Your task to perform on an android device: Check the news Image 0: 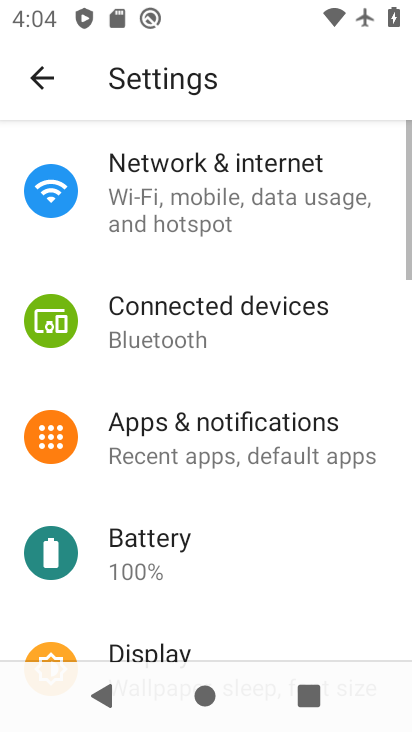
Step 0: press home button
Your task to perform on an android device: Check the news Image 1: 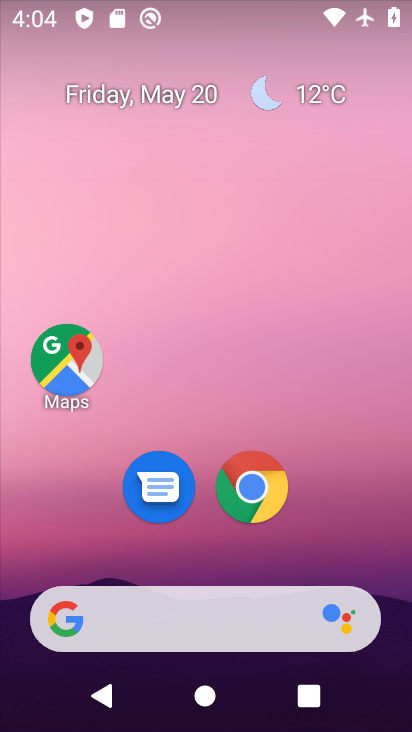
Step 1: drag from (147, 549) to (249, 32)
Your task to perform on an android device: Check the news Image 2: 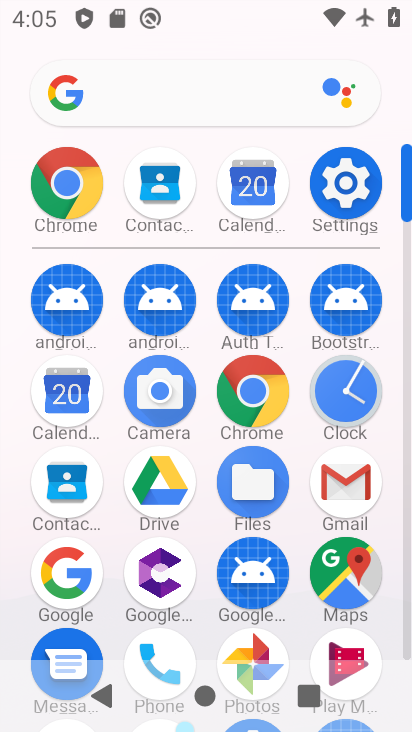
Step 2: click (53, 581)
Your task to perform on an android device: Check the news Image 3: 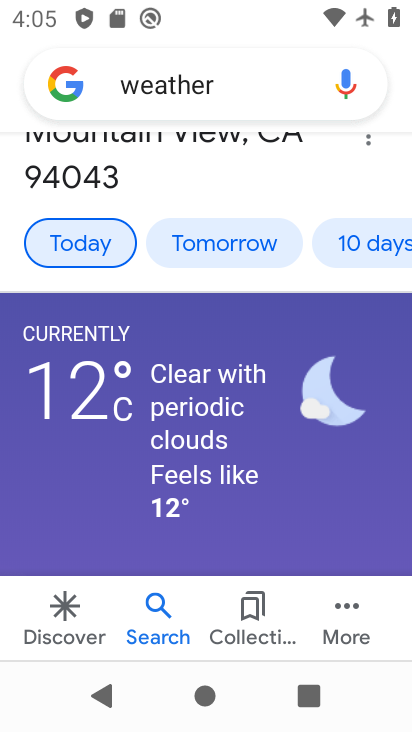
Step 3: click (220, 89)
Your task to perform on an android device: Check the news Image 4: 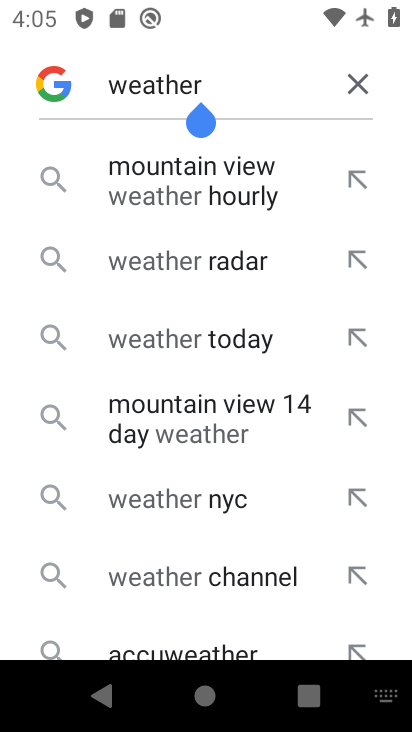
Step 4: click (359, 84)
Your task to perform on an android device: Check the news Image 5: 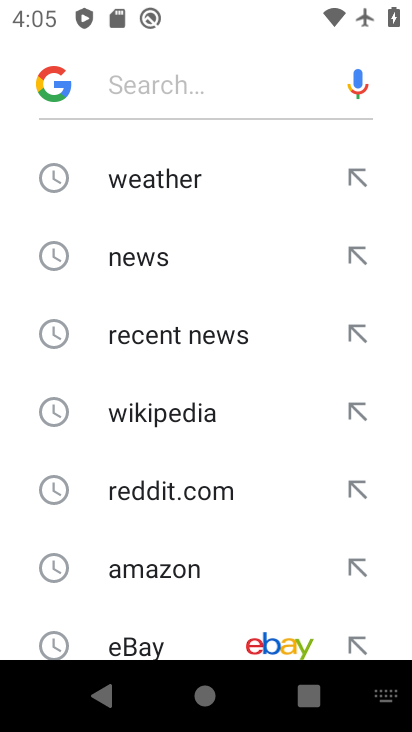
Step 5: click (156, 256)
Your task to perform on an android device: Check the news Image 6: 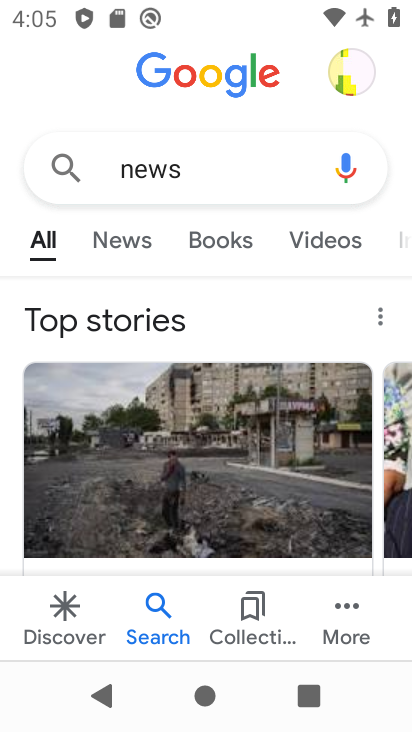
Step 6: task complete